Your task to perform on an android device: Do I have any events today? Image 0: 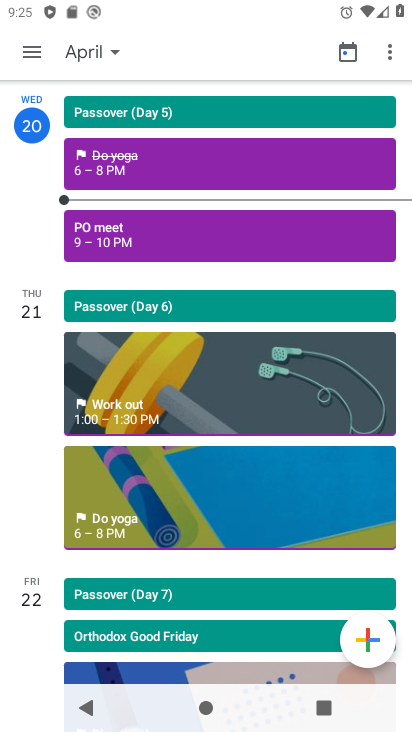
Step 0: press home button
Your task to perform on an android device: Do I have any events today? Image 1: 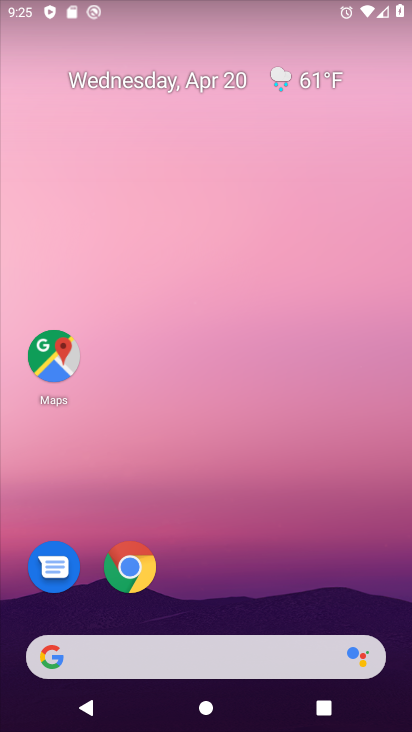
Step 1: drag from (197, 595) to (188, 171)
Your task to perform on an android device: Do I have any events today? Image 2: 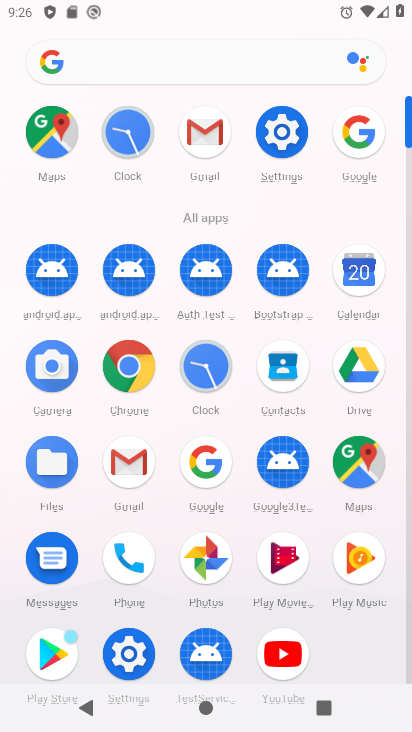
Step 2: click (360, 297)
Your task to perform on an android device: Do I have any events today? Image 3: 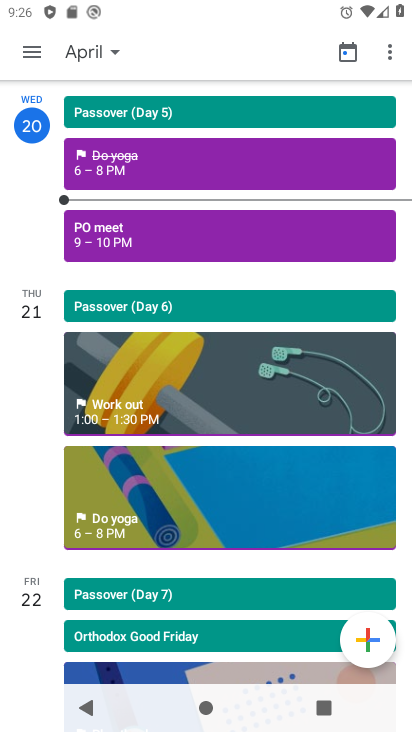
Step 3: click (89, 53)
Your task to perform on an android device: Do I have any events today? Image 4: 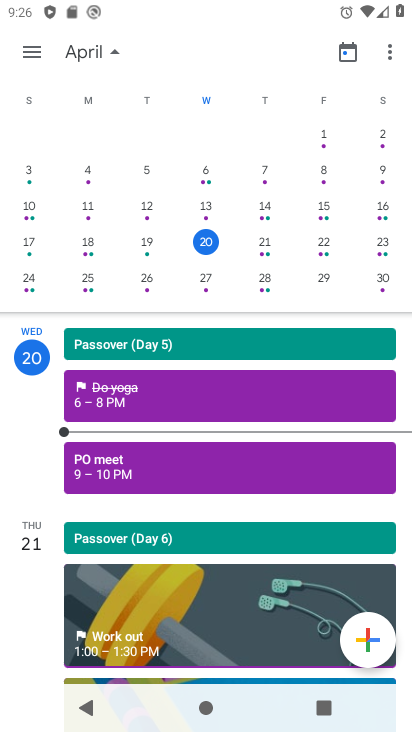
Step 4: click (207, 238)
Your task to perform on an android device: Do I have any events today? Image 5: 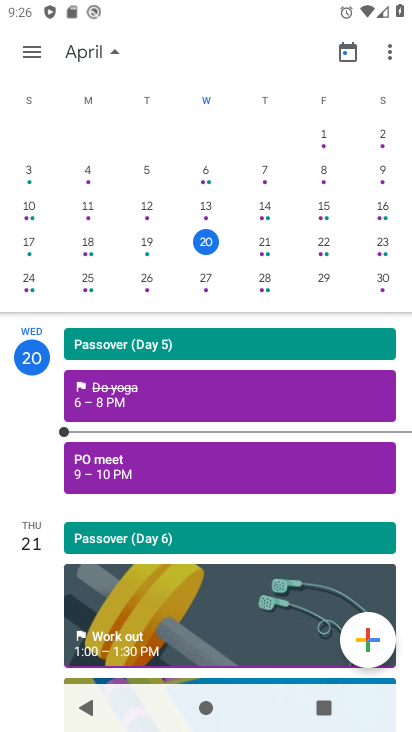
Step 5: task complete